Your task to perform on an android device: Clear all items from cart on ebay. Search for "alienware aurora" on ebay, select the first entry, add it to the cart, then select checkout. Image 0: 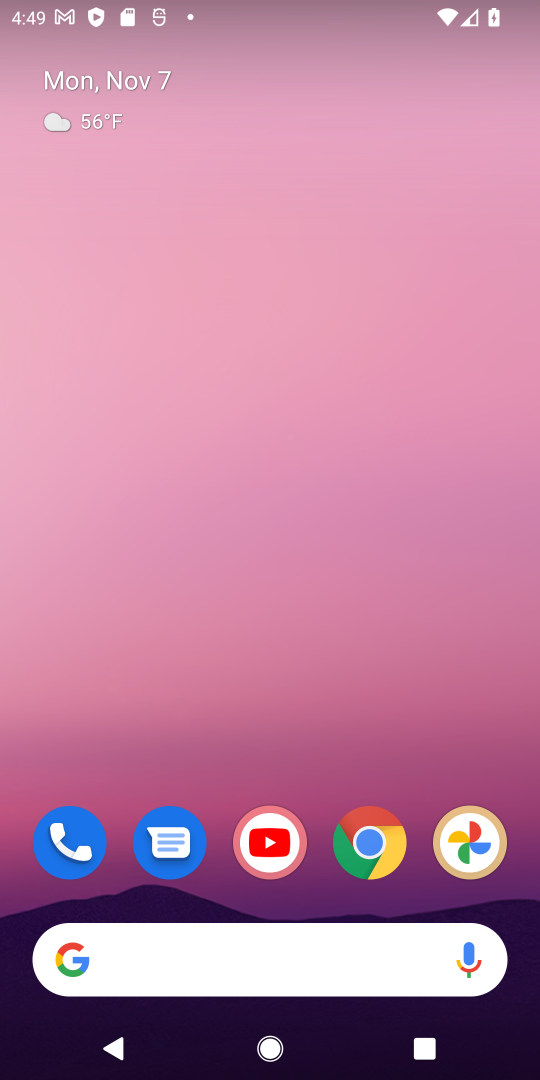
Step 0: click (381, 838)
Your task to perform on an android device: Clear all items from cart on ebay. Search for "alienware aurora" on ebay, select the first entry, add it to the cart, then select checkout. Image 1: 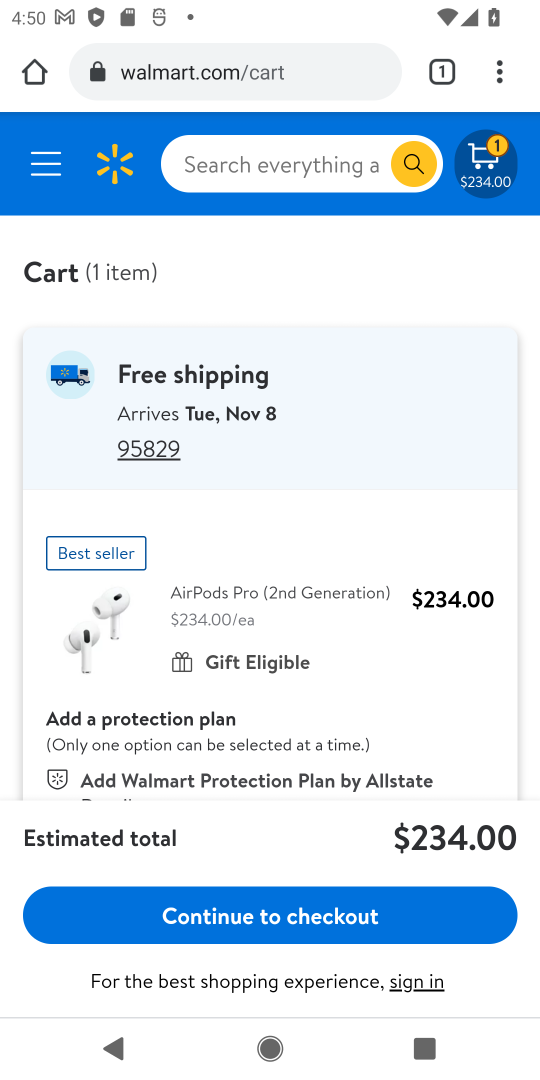
Step 1: click (172, 66)
Your task to perform on an android device: Clear all items from cart on ebay. Search for "alienware aurora" on ebay, select the first entry, add it to the cart, then select checkout. Image 2: 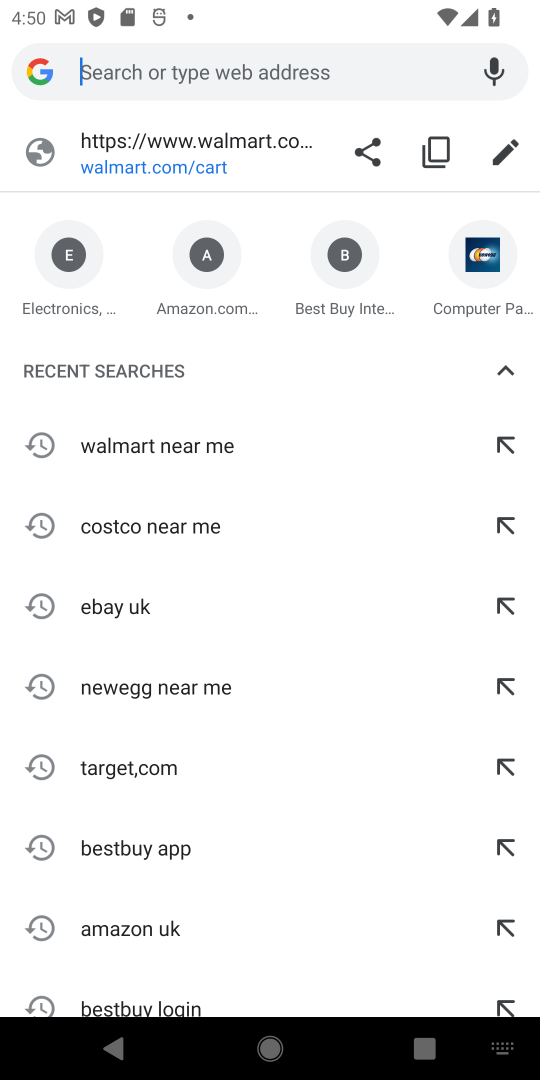
Step 2: type "ebay"
Your task to perform on an android device: Clear all items from cart on ebay. Search for "alienware aurora" on ebay, select the first entry, add it to the cart, then select checkout. Image 3: 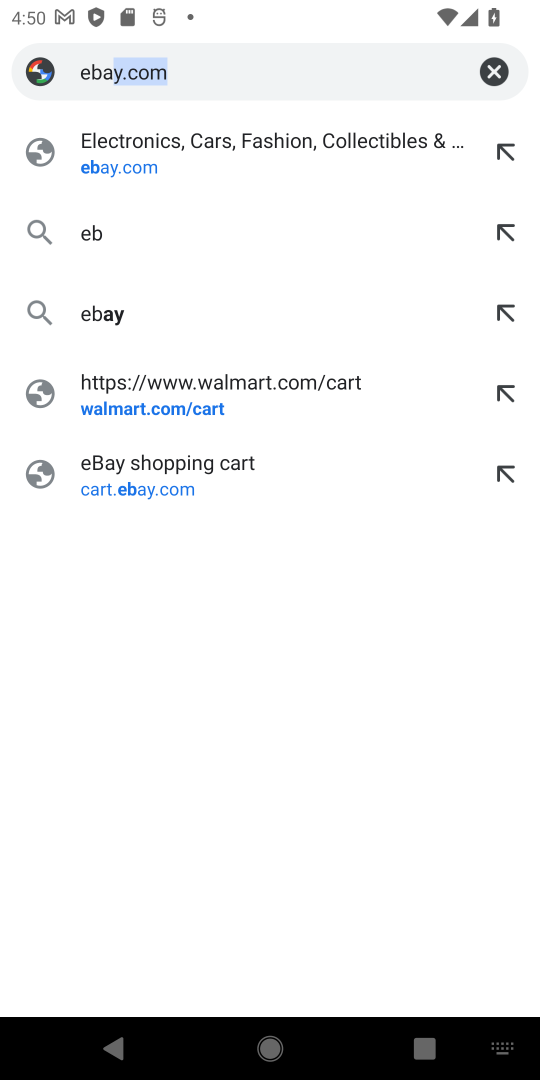
Step 3: press enter
Your task to perform on an android device: Clear all items from cart on ebay. Search for "alienware aurora" on ebay, select the first entry, add it to the cart, then select checkout. Image 4: 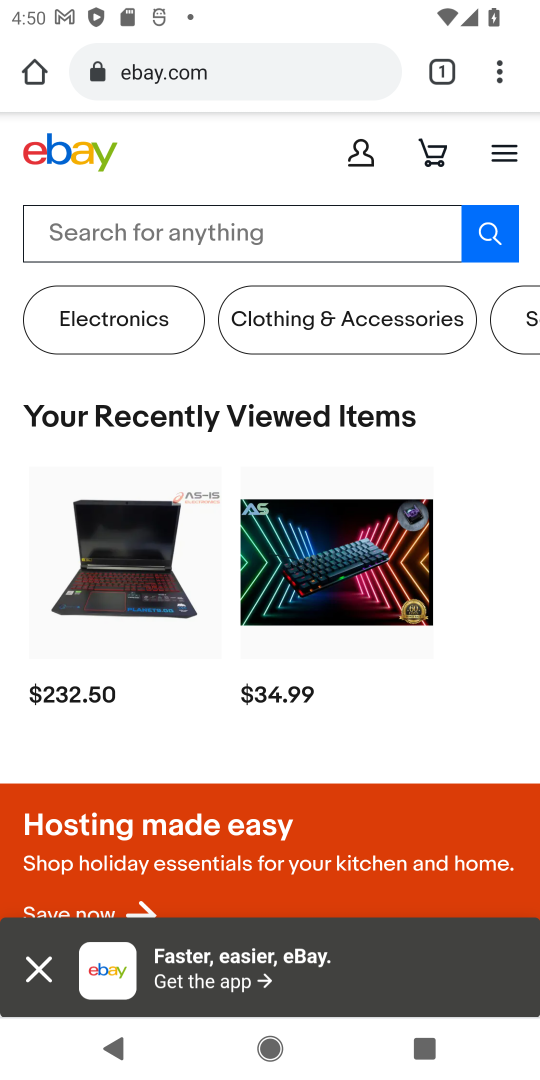
Step 4: click (160, 235)
Your task to perform on an android device: Clear all items from cart on ebay. Search for "alienware aurora" on ebay, select the first entry, add it to the cart, then select checkout. Image 5: 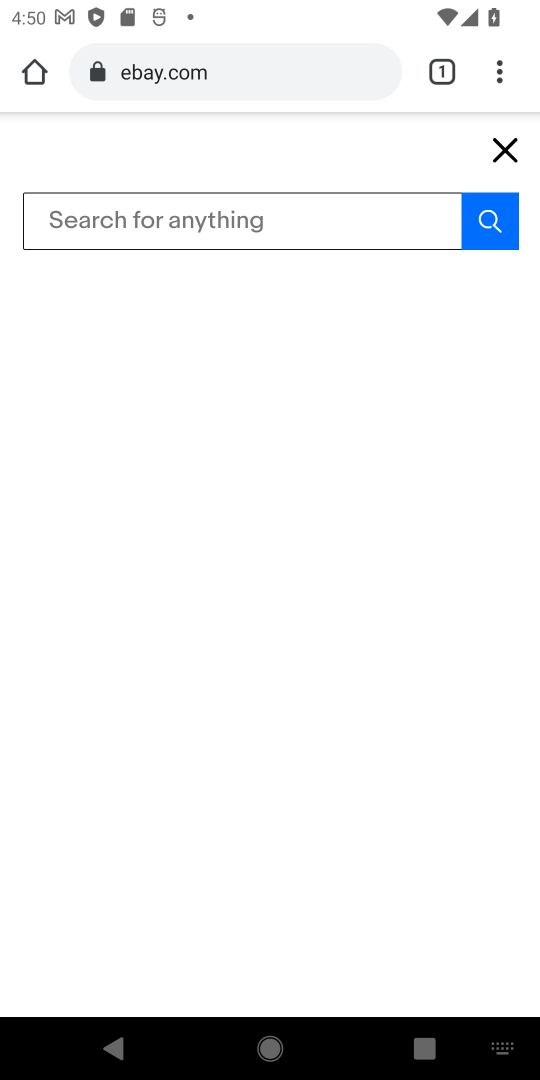
Step 5: type "alienware aurora"
Your task to perform on an android device: Clear all items from cart on ebay. Search for "alienware aurora" on ebay, select the first entry, add it to the cart, then select checkout. Image 6: 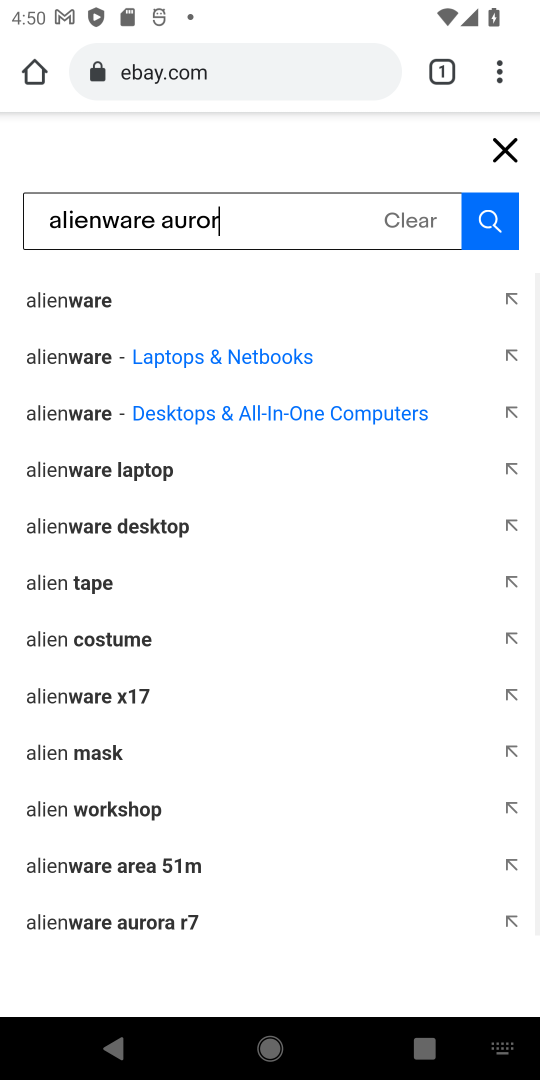
Step 6: press enter
Your task to perform on an android device: Clear all items from cart on ebay. Search for "alienware aurora" on ebay, select the first entry, add it to the cart, then select checkout. Image 7: 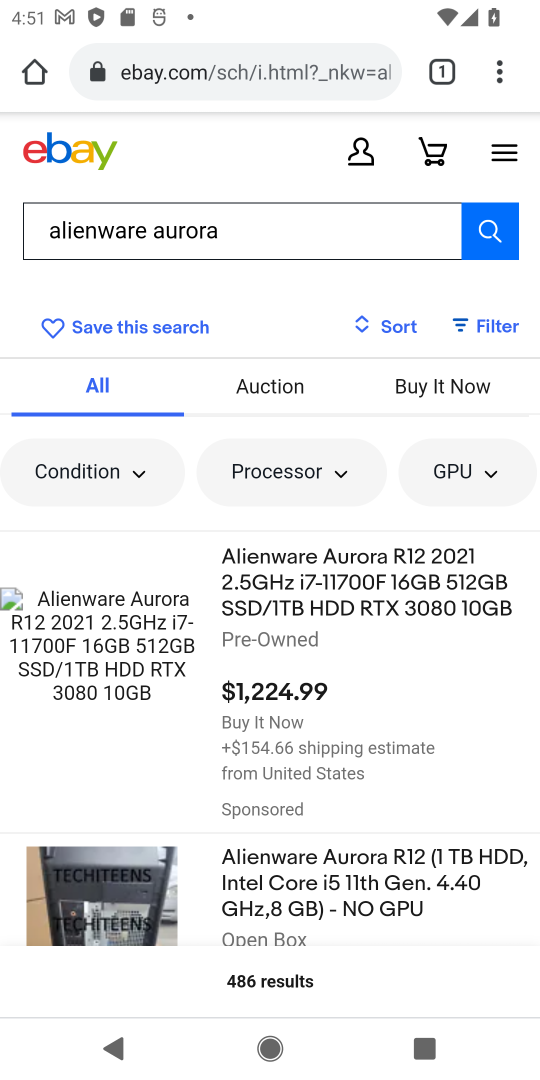
Step 7: click (384, 587)
Your task to perform on an android device: Clear all items from cart on ebay. Search for "alienware aurora" on ebay, select the first entry, add it to the cart, then select checkout. Image 8: 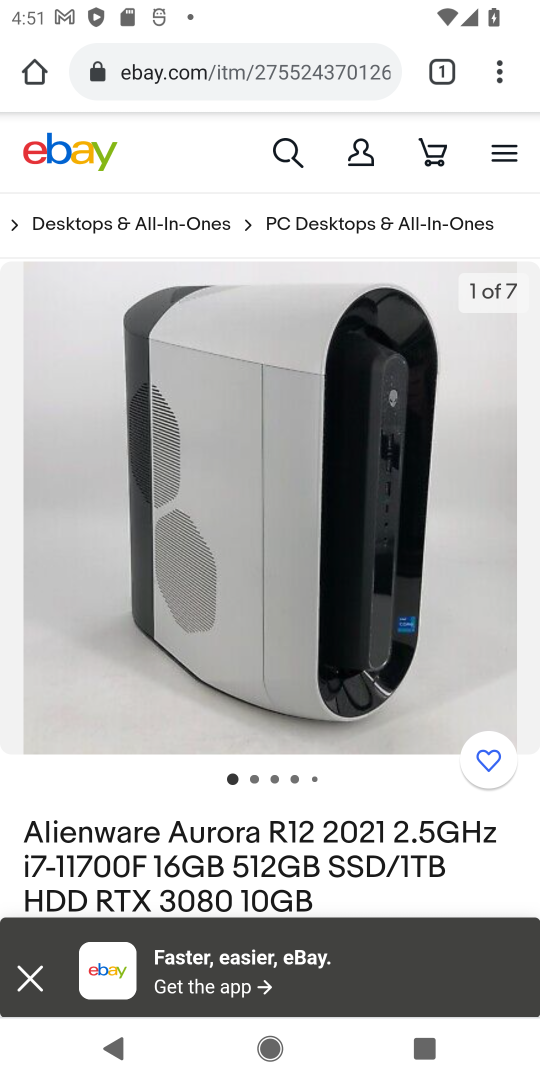
Step 8: drag from (359, 852) to (433, 372)
Your task to perform on an android device: Clear all items from cart on ebay. Search for "alienware aurora" on ebay, select the first entry, add it to the cart, then select checkout. Image 9: 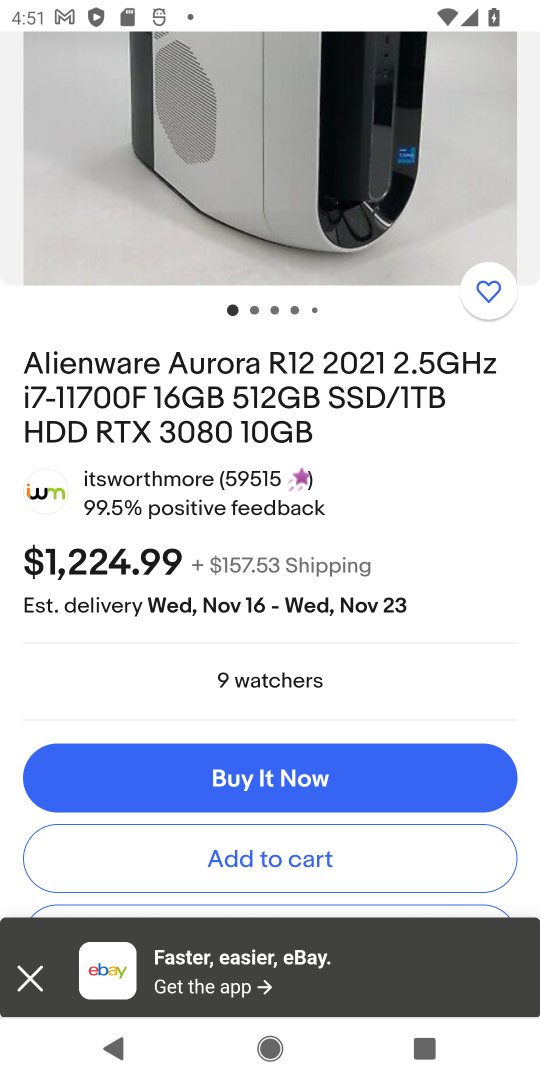
Step 9: drag from (339, 695) to (378, 464)
Your task to perform on an android device: Clear all items from cart on ebay. Search for "alienware aurora" on ebay, select the first entry, add it to the cart, then select checkout. Image 10: 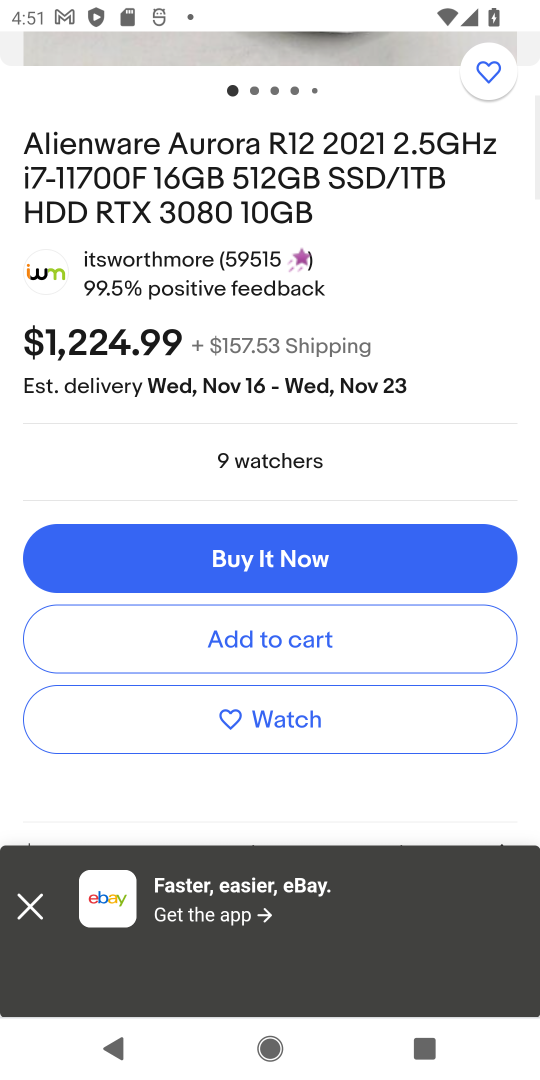
Step 10: click (283, 633)
Your task to perform on an android device: Clear all items from cart on ebay. Search for "alienware aurora" on ebay, select the first entry, add it to the cart, then select checkout. Image 11: 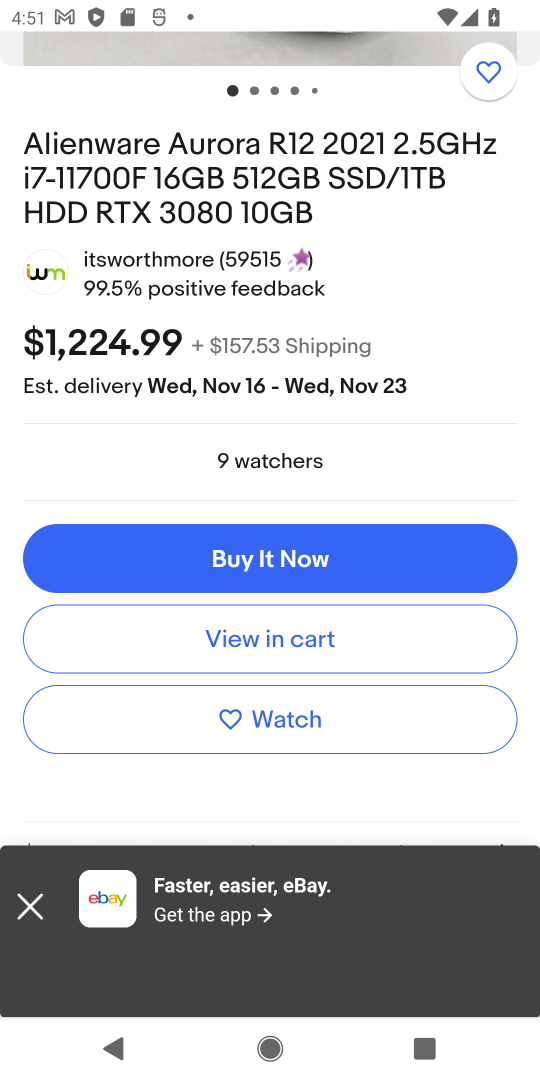
Step 11: click (254, 639)
Your task to perform on an android device: Clear all items from cart on ebay. Search for "alienware aurora" on ebay, select the first entry, add it to the cart, then select checkout. Image 12: 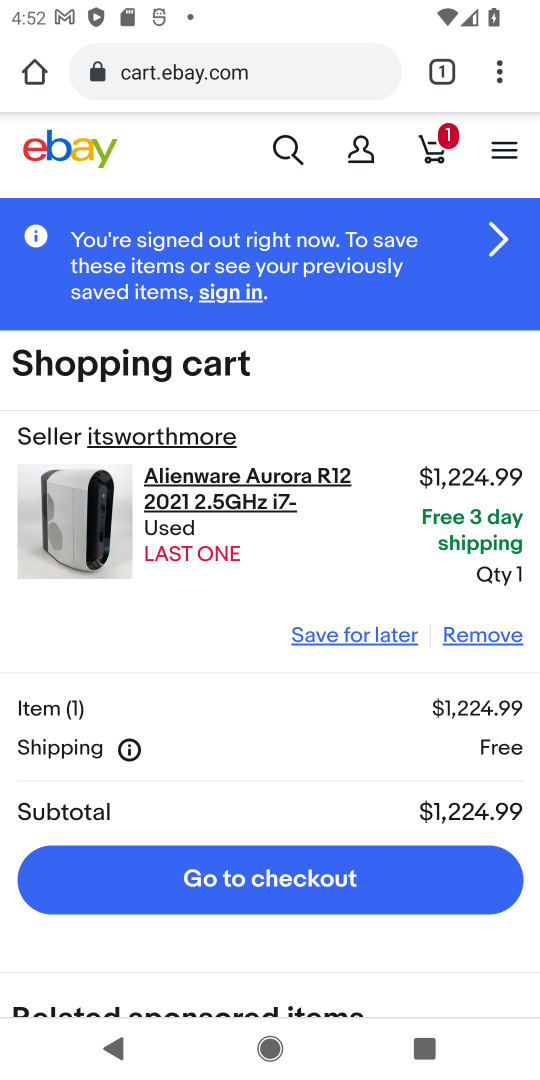
Step 12: click (304, 867)
Your task to perform on an android device: Clear all items from cart on ebay. Search for "alienware aurora" on ebay, select the first entry, add it to the cart, then select checkout. Image 13: 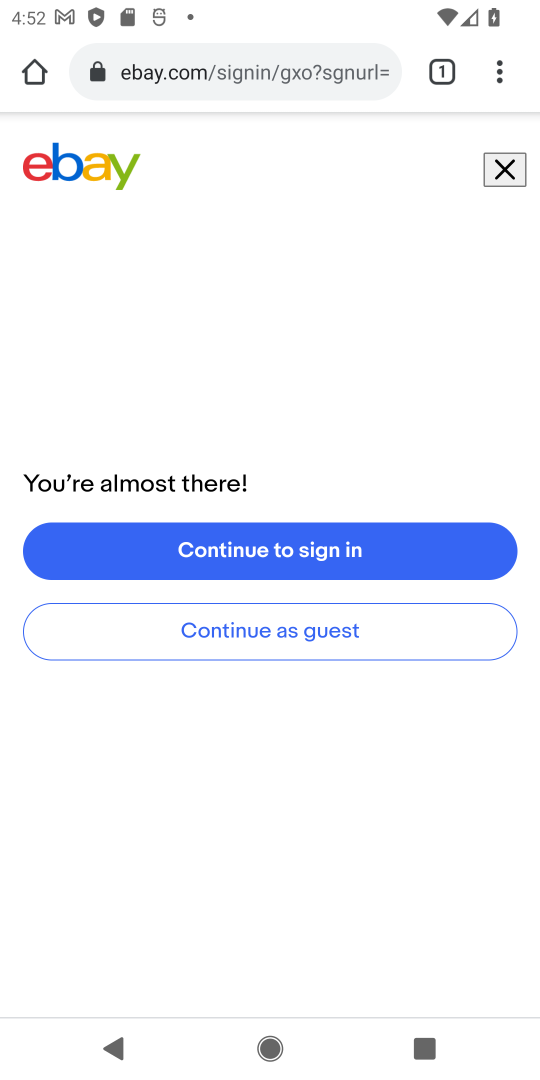
Step 13: task complete